Your task to perform on an android device: turn on airplane mode Image 0: 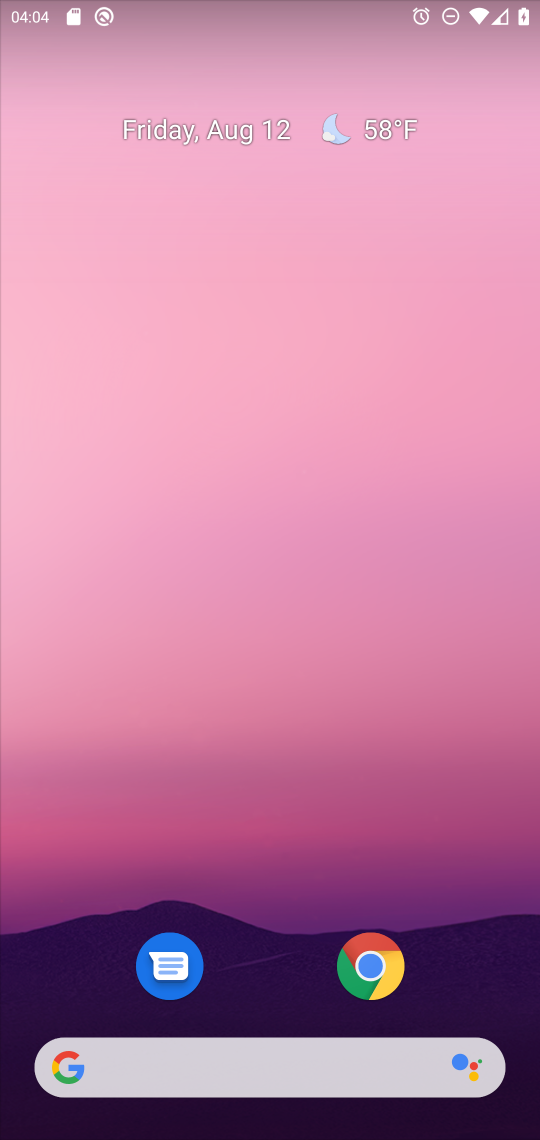
Step 0: drag from (287, 556) to (289, 17)
Your task to perform on an android device: turn on airplane mode Image 1: 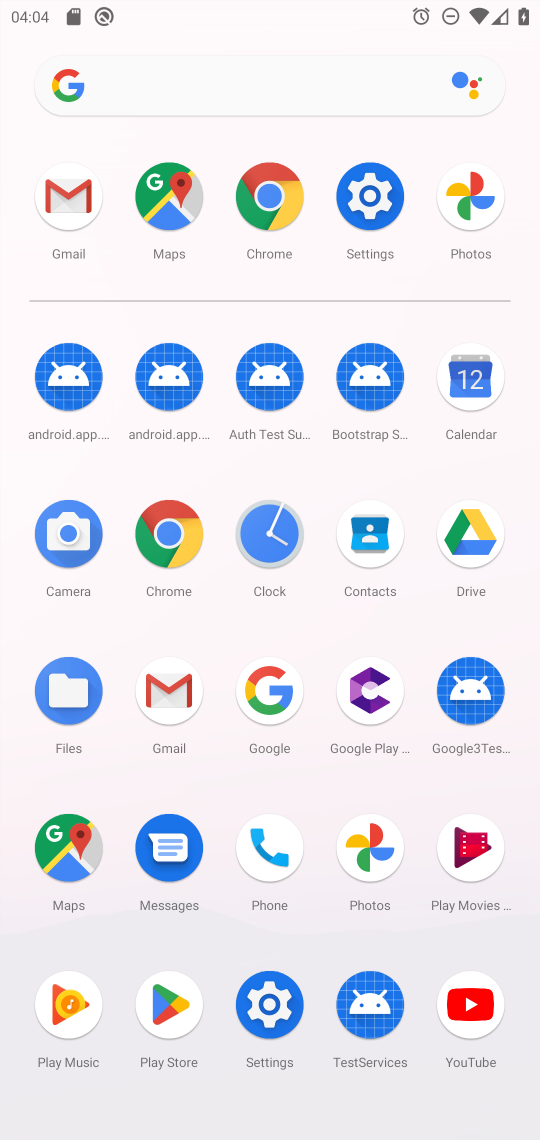
Step 1: click (286, 1002)
Your task to perform on an android device: turn on airplane mode Image 2: 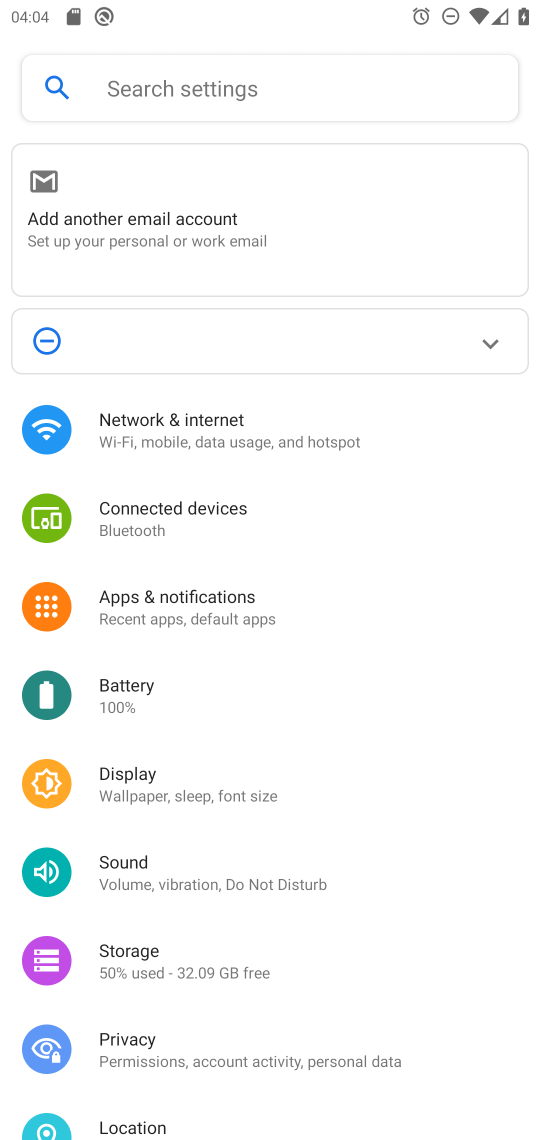
Step 2: click (213, 441)
Your task to perform on an android device: turn on airplane mode Image 3: 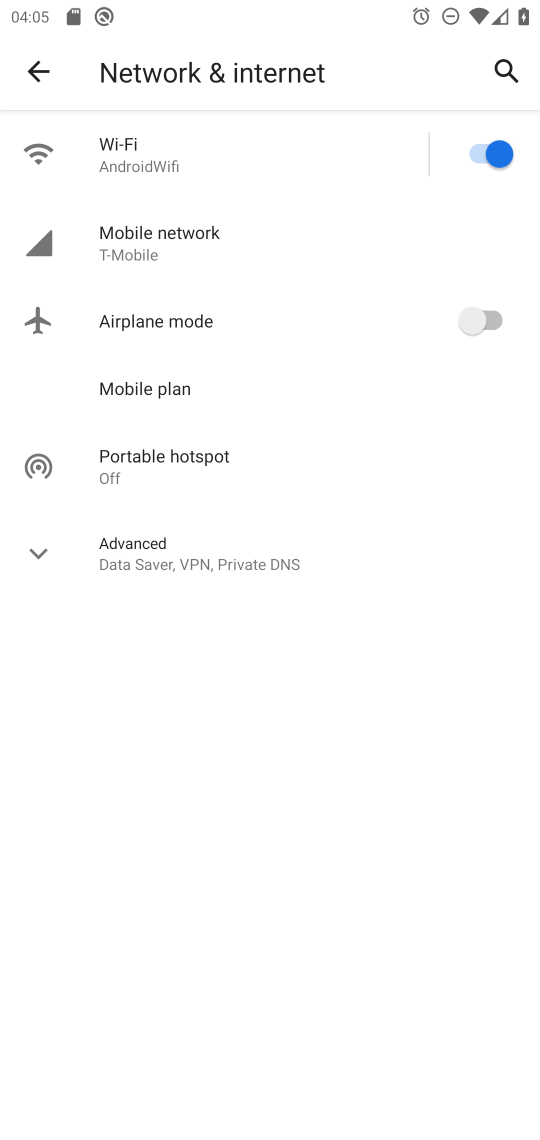
Step 3: click (491, 308)
Your task to perform on an android device: turn on airplane mode Image 4: 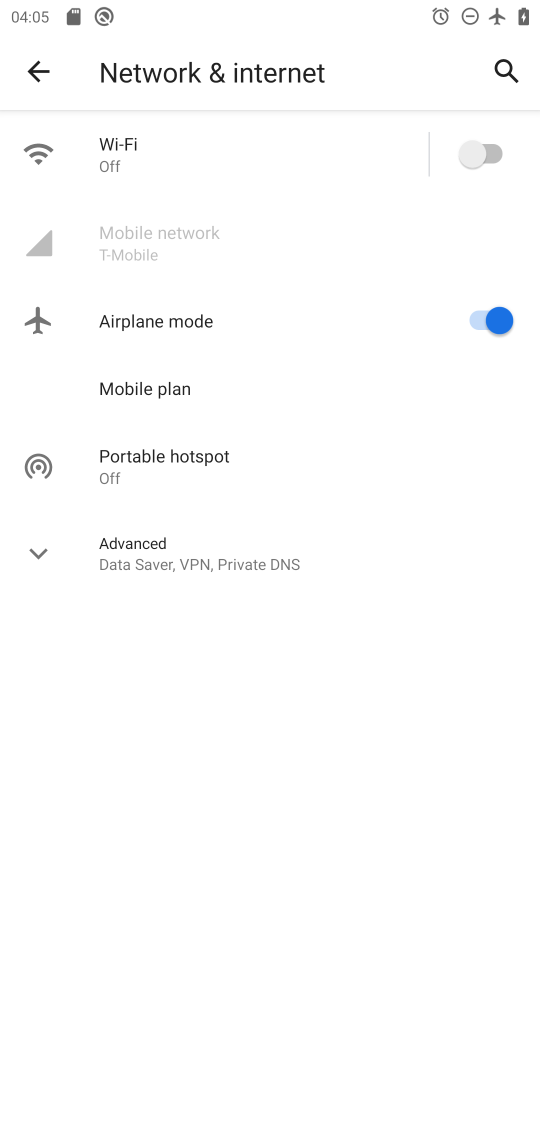
Step 4: task complete